Your task to perform on an android device: What's a goodrestaurant in Austin? Image 0: 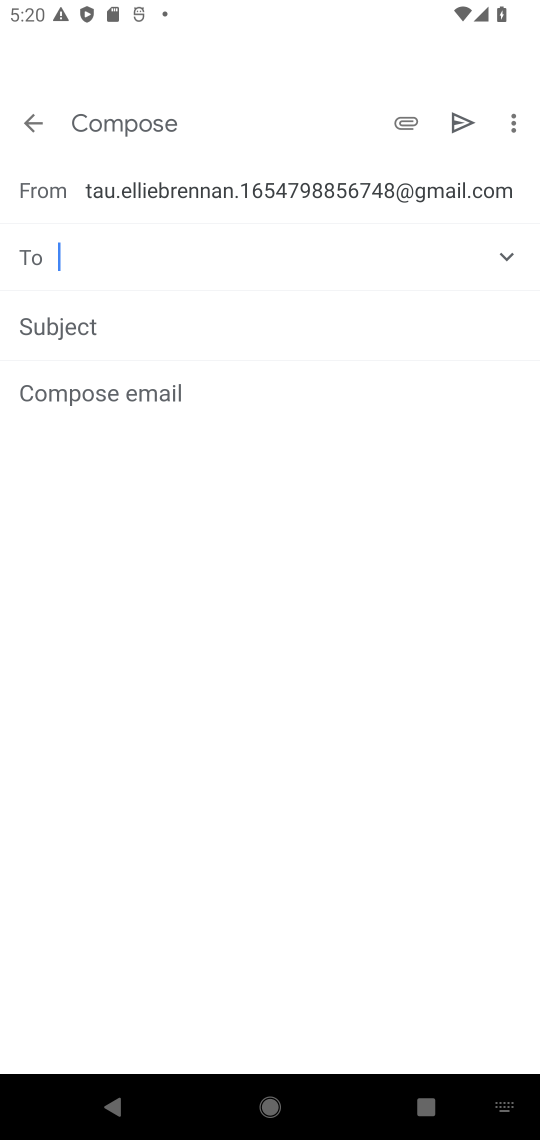
Step 0: press home button
Your task to perform on an android device: What's a goodrestaurant in Austin? Image 1: 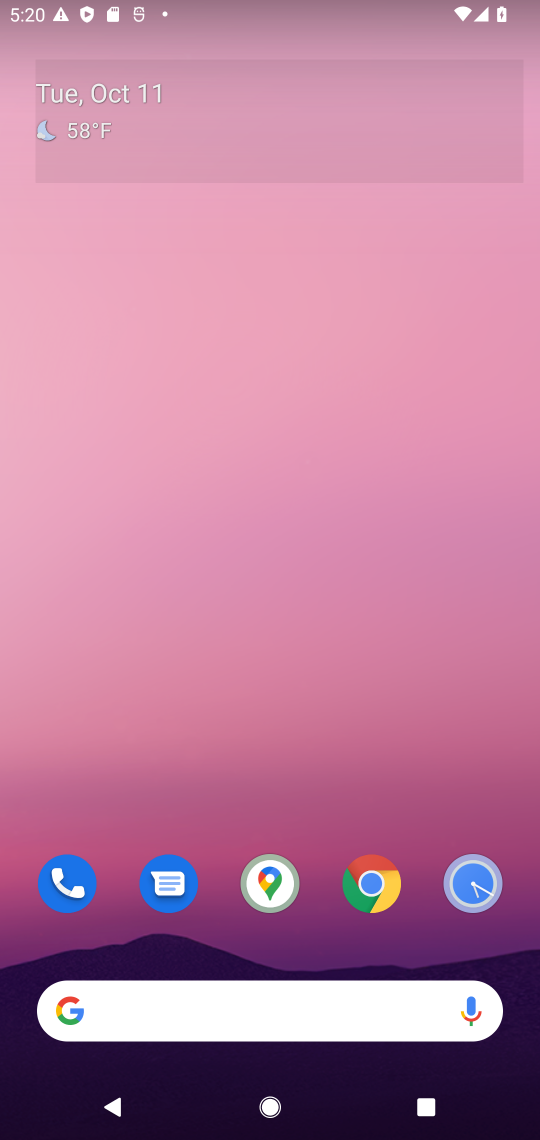
Step 1: drag from (335, 945) to (249, 3)
Your task to perform on an android device: What's a goodrestaurant in Austin? Image 2: 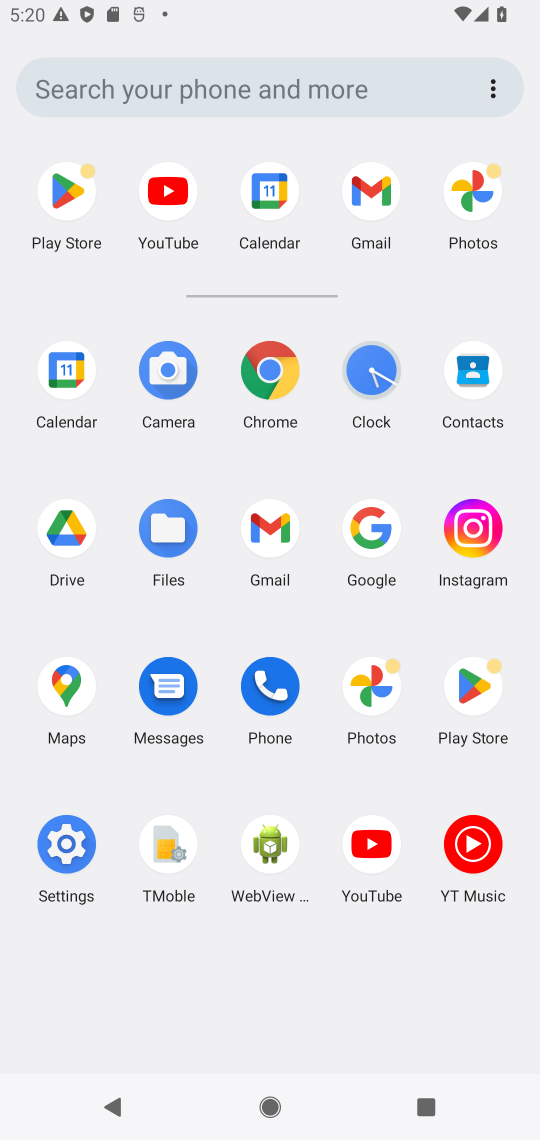
Step 2: click (269, 376)
Your task to perform on an android device: What's a goodrestaurant in Austin? Image 3: 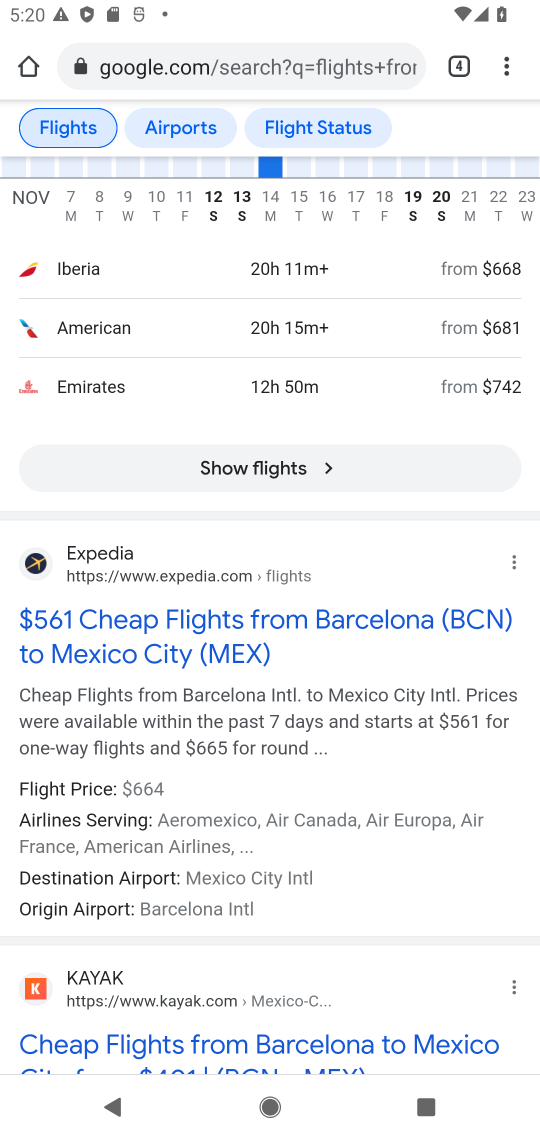
Step 3: click (315, 86)
Your task to perform on an android device: What's a goodrestaurant in Austin? Image 4: 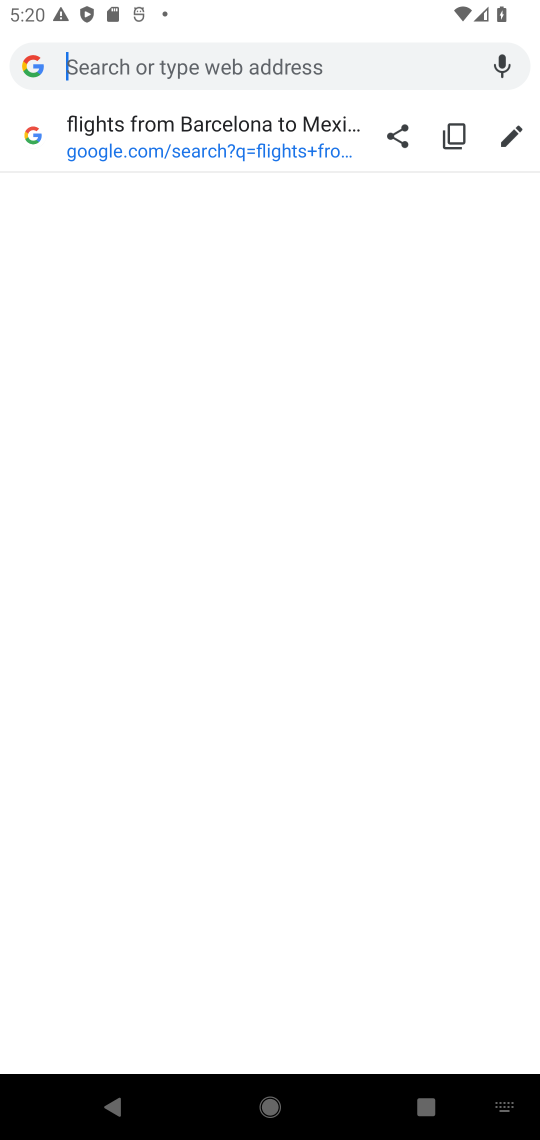
Step 4: type "What's a goodrestaurant in Austin?"
Your task to perform on an android device: What's a goodrestaurant in Austin? Image 5: 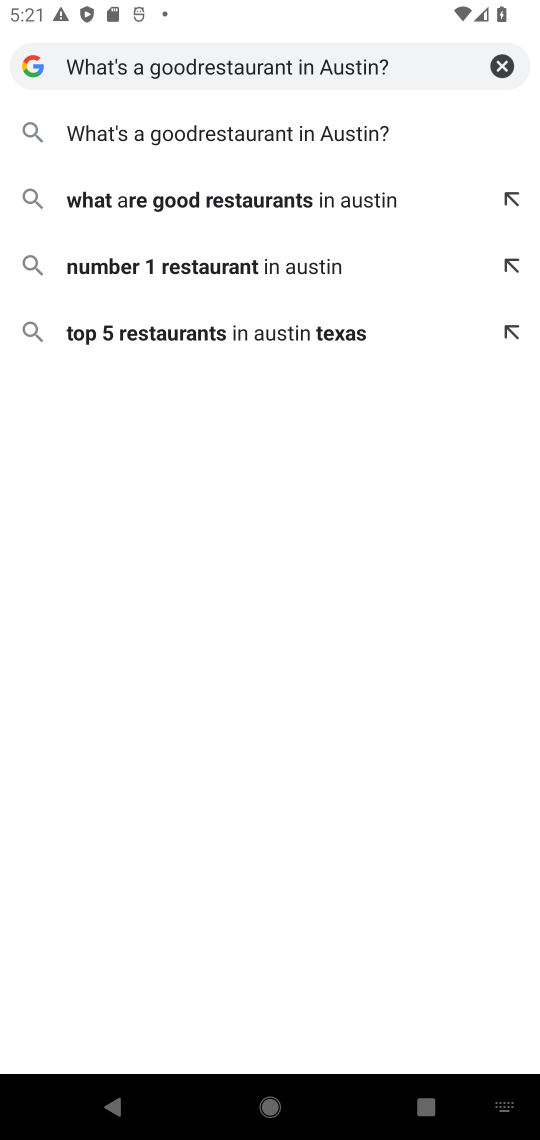
Step 5: press enter
Your task to perform on an android device: What's a goodrestaurant in Austin? Image 6: 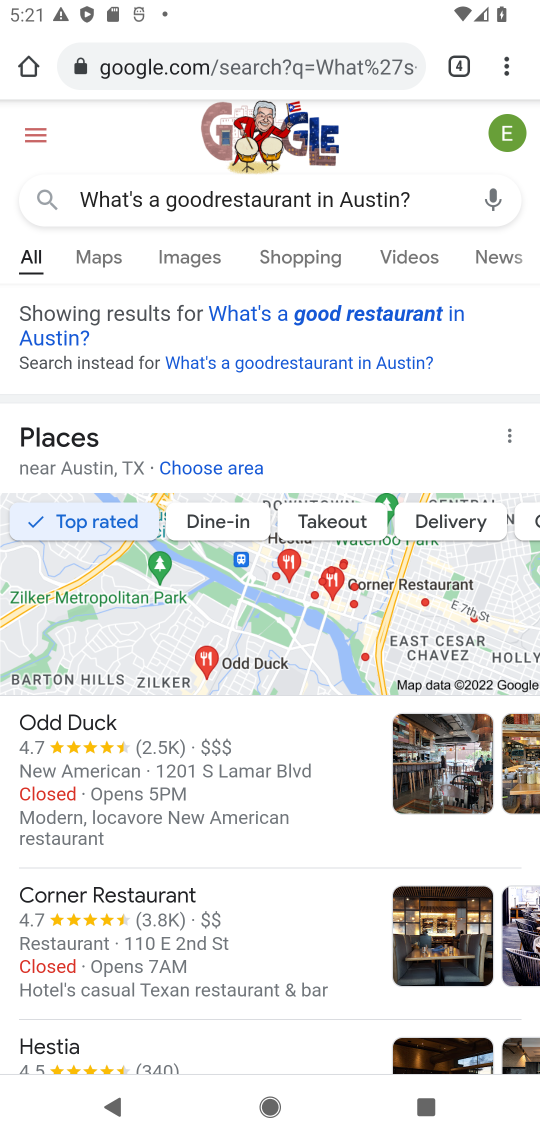
Step 6: task complete